Your task to perform on an android device: search for starred emails in the gmail app Image 0: 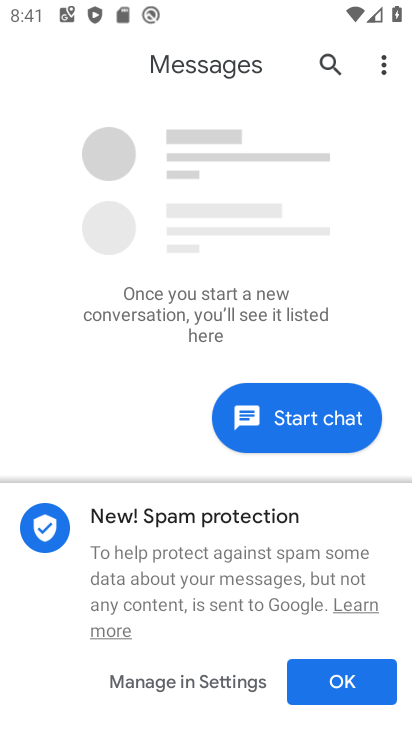
Step 0: press home button
Your task to perform on an android device: search for starred emails in the gmail app Image 1: 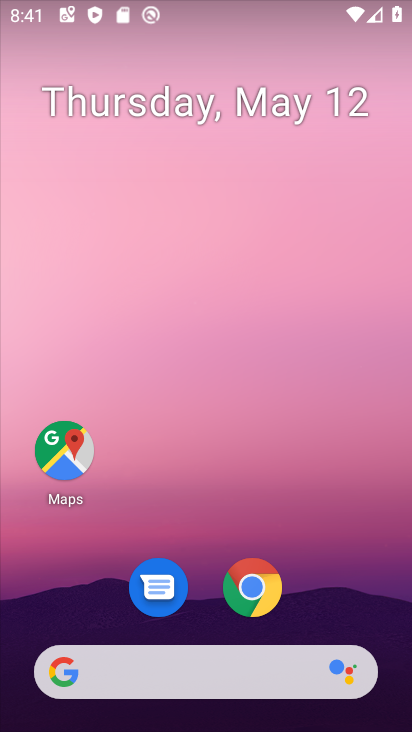
Step 1: drag from (284, 597) to (300, 239)
Your task to perform on an android device: search for starred emails in the gmail app Image 2: 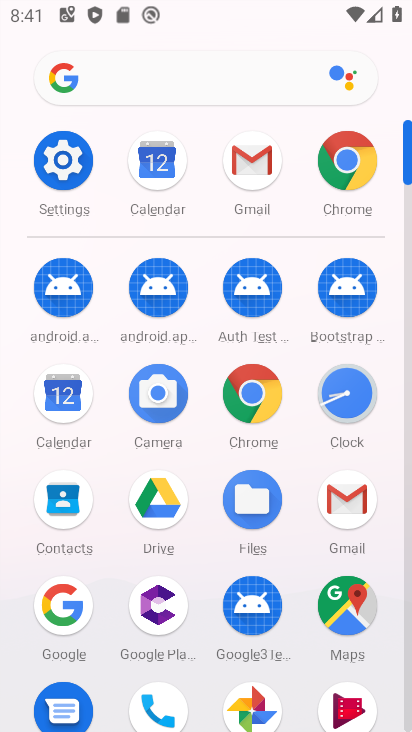
Step 2: click (347, 488)
Your task to perform on an android device: search for starred emails in the gmail app Image 3: 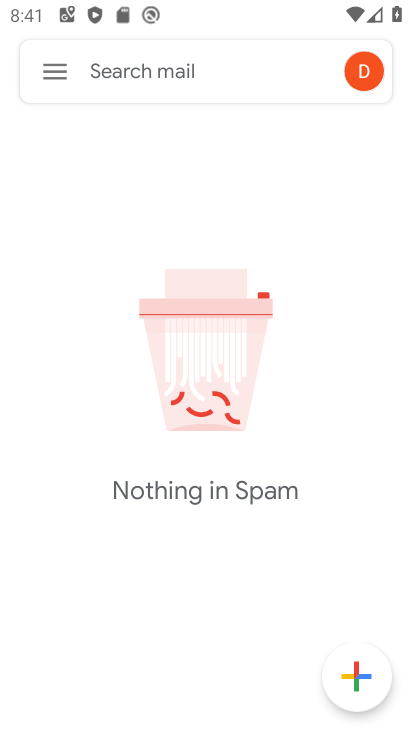
Step 3: click (50, 66)
Your task to perform on an android device: search for starred emails in the gmail app Image 4: 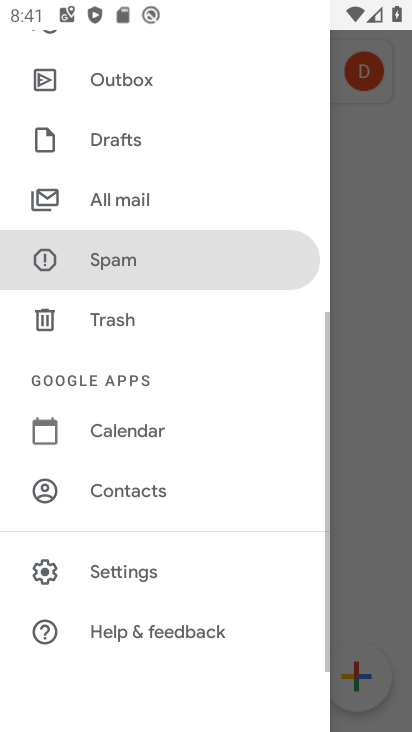
Step 4: drag from (137, 169) to (92, 613)
Your task to perform on an android device: search for starred emails in the gmail app Image 5: 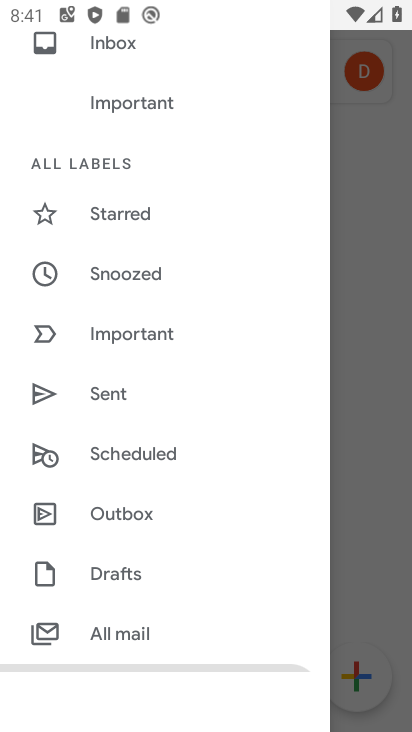
Step 5: click (134, 206)
Your task to perform on an android device: search for starred emails in the gmail app Image 6: 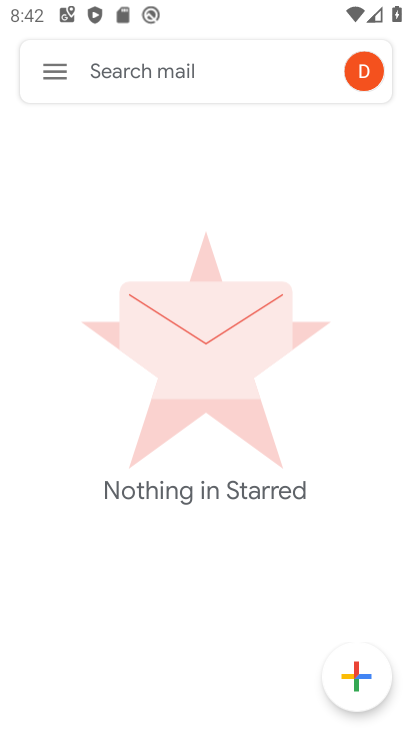
Step 6: task complete